Your task to perform on an android device: install app "NewsBreak: Local News & Alerts" Image 0: 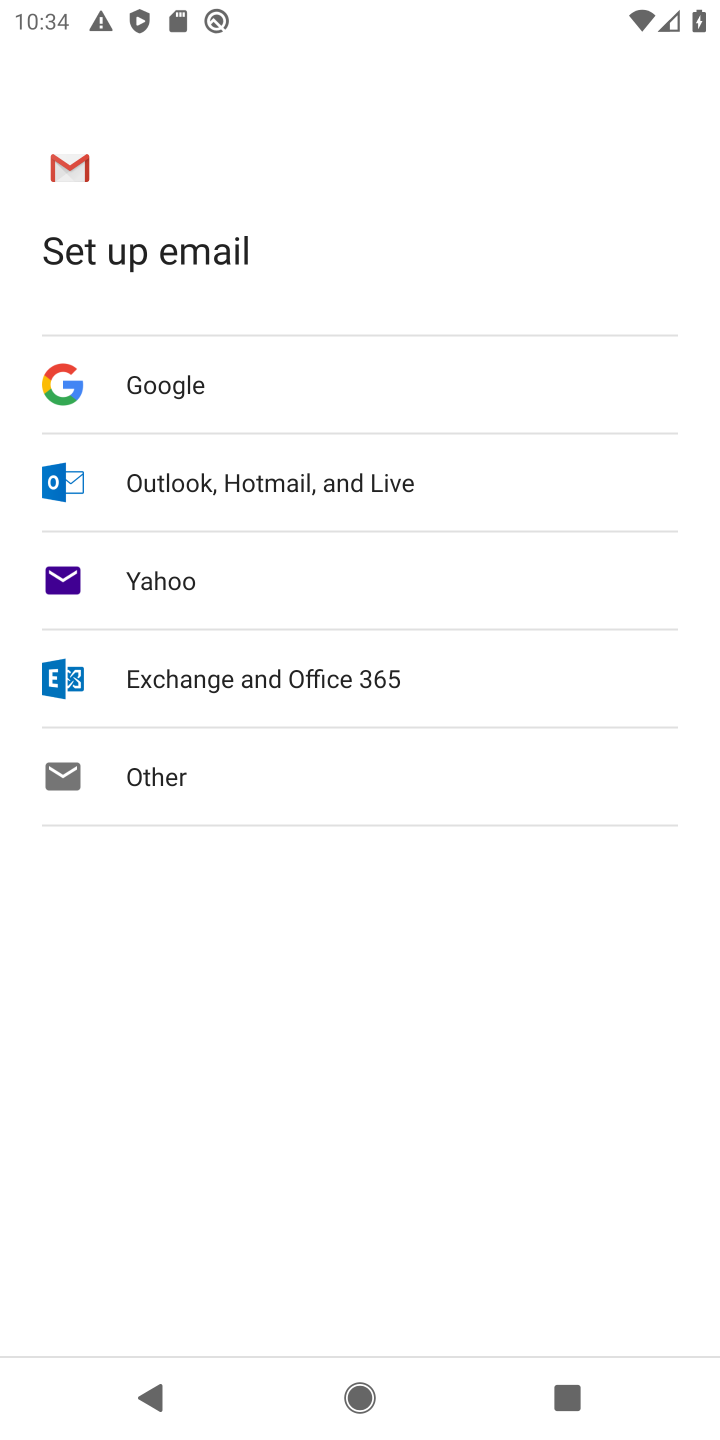
Step 0: press home button
Your task to perform on an android device: install app "NewsBreak: Local News & Alerts" Image 1: 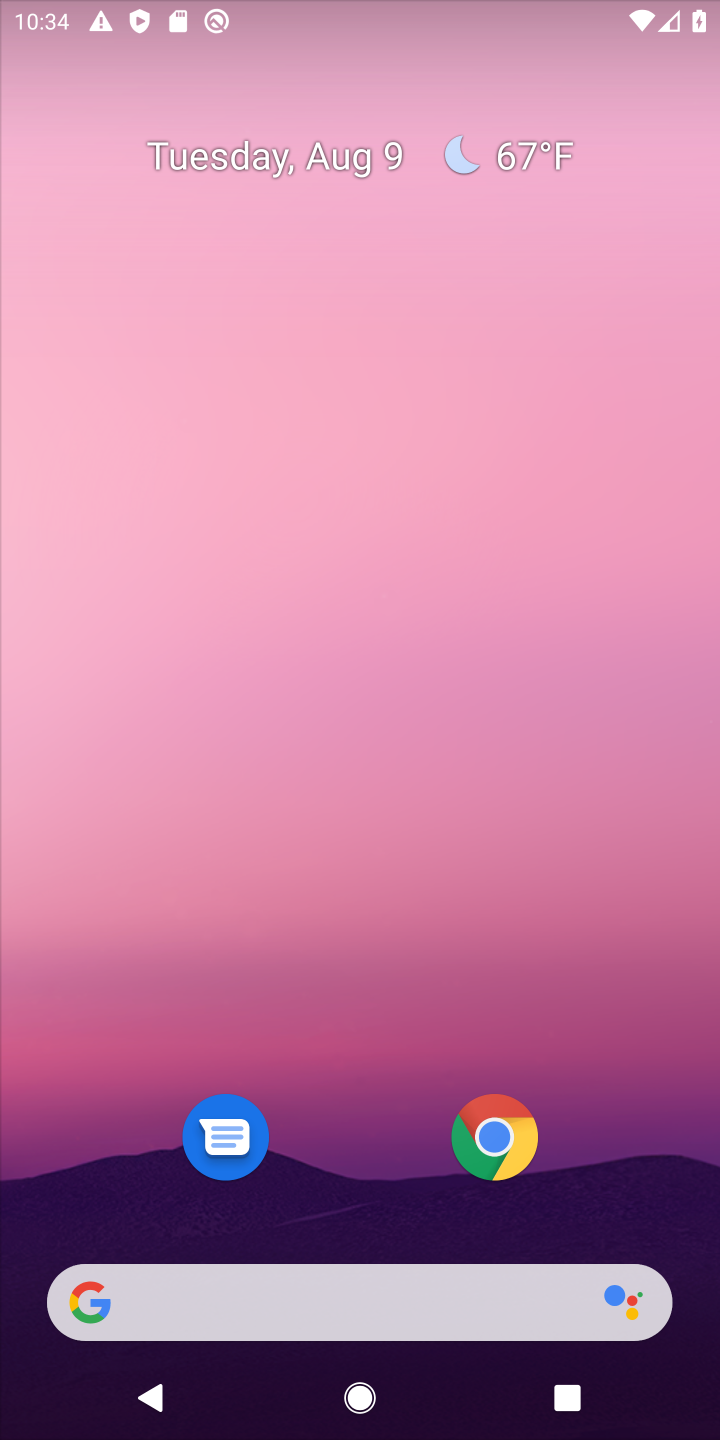
Step 1: drag from (489, 770) to (279, 16)
Your task to perform on an android device: install app "NewsBreak: Local News & Alerts" Image 2: 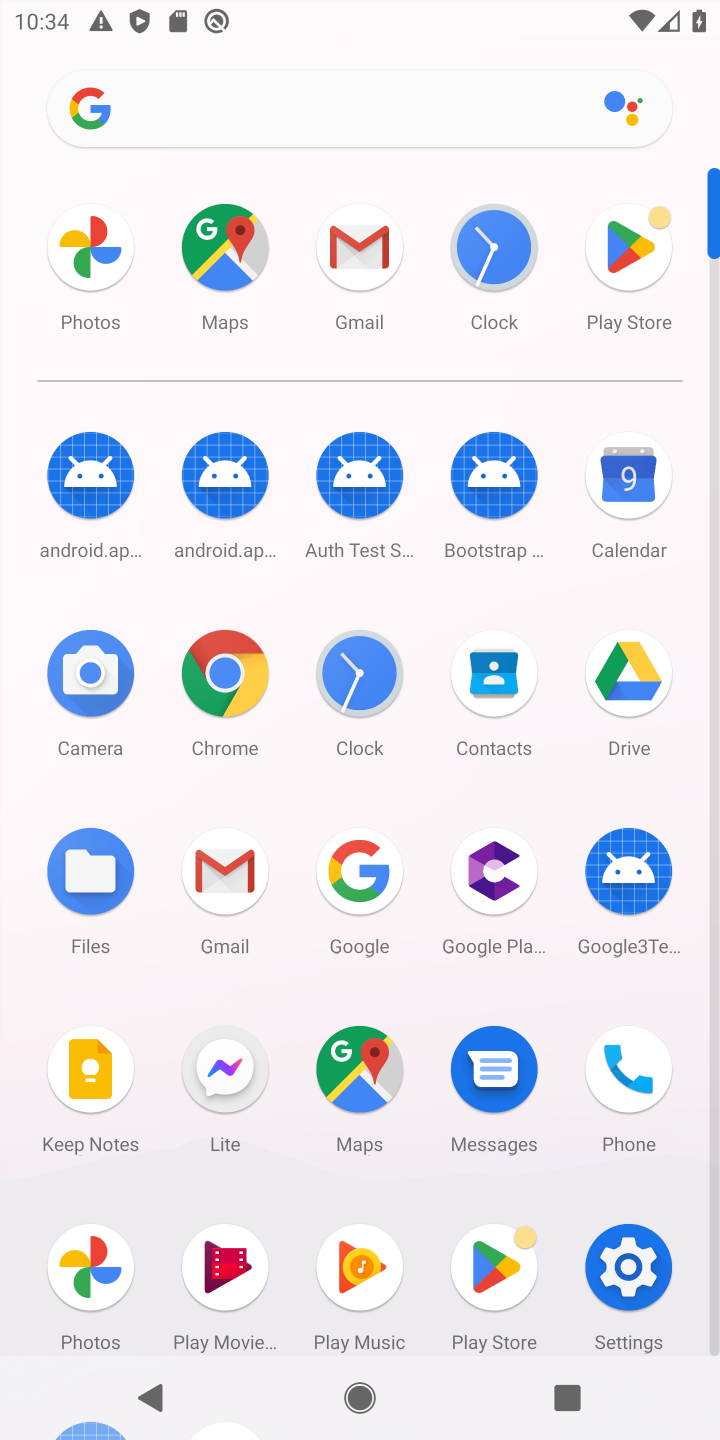
Step 2: click (628, 211)
Your task to perform on an android device: install app "NewsBreak: Local News & Alerts" Image 3: 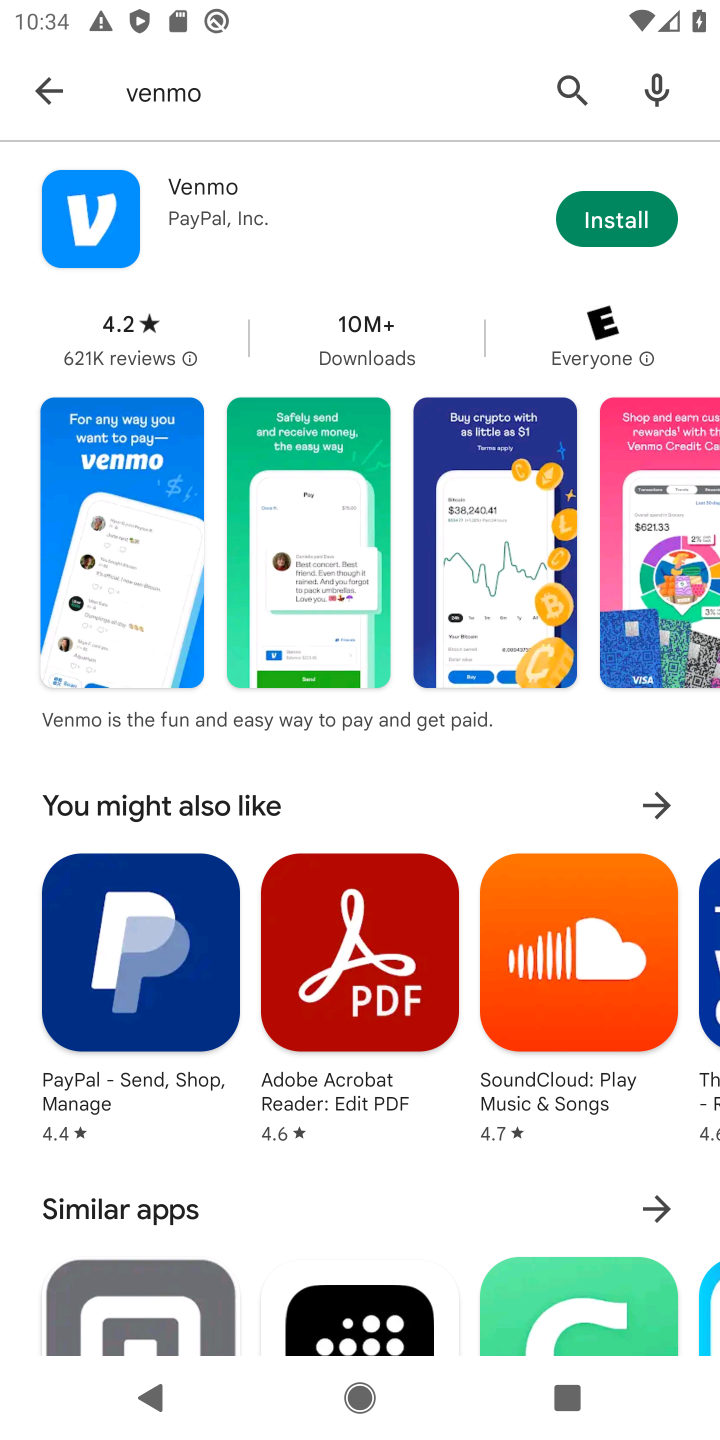
Step 3: press back button
Your task to perform on an android device: install app "NewsBreak: Local News & Alerts" Image 4: 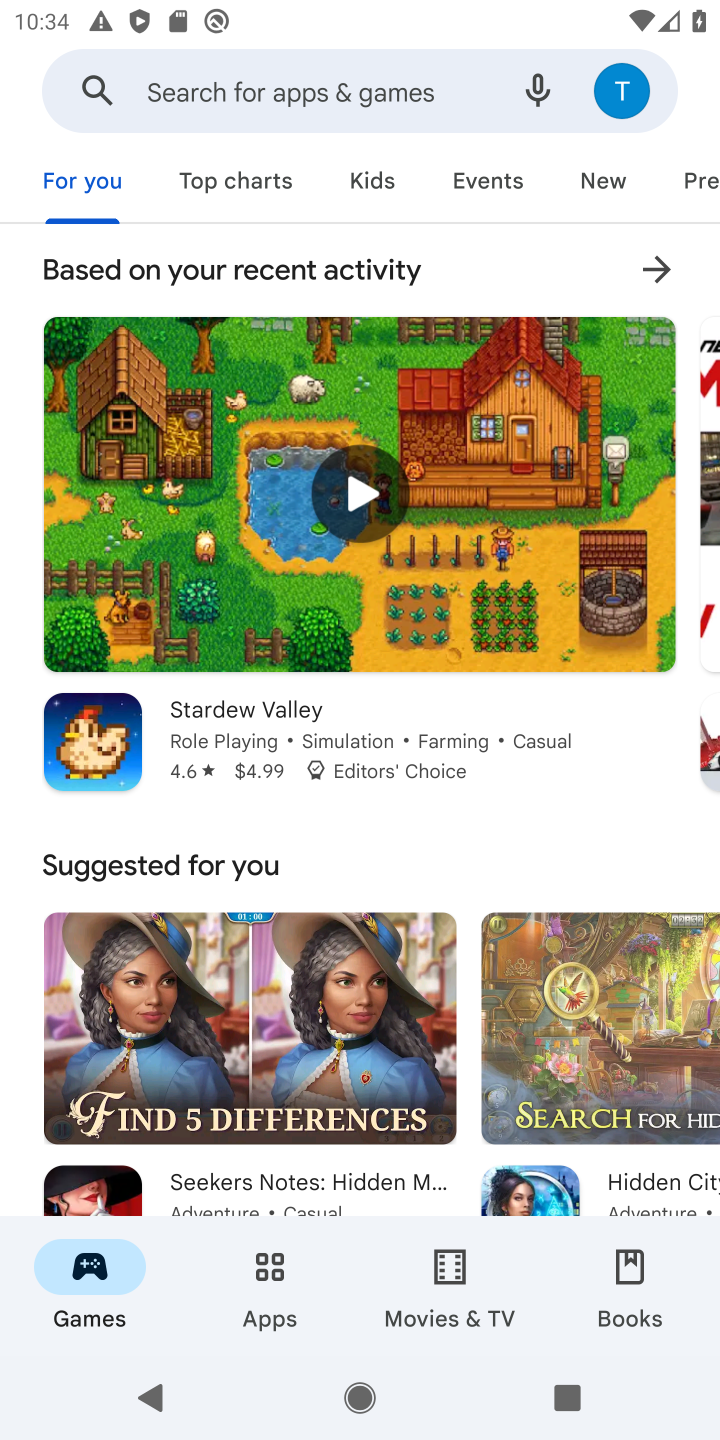
Step 4: click (233, 97)
Your task to perform on an android device: install app "NewsBreak: Local News & Alerts" Image 5: 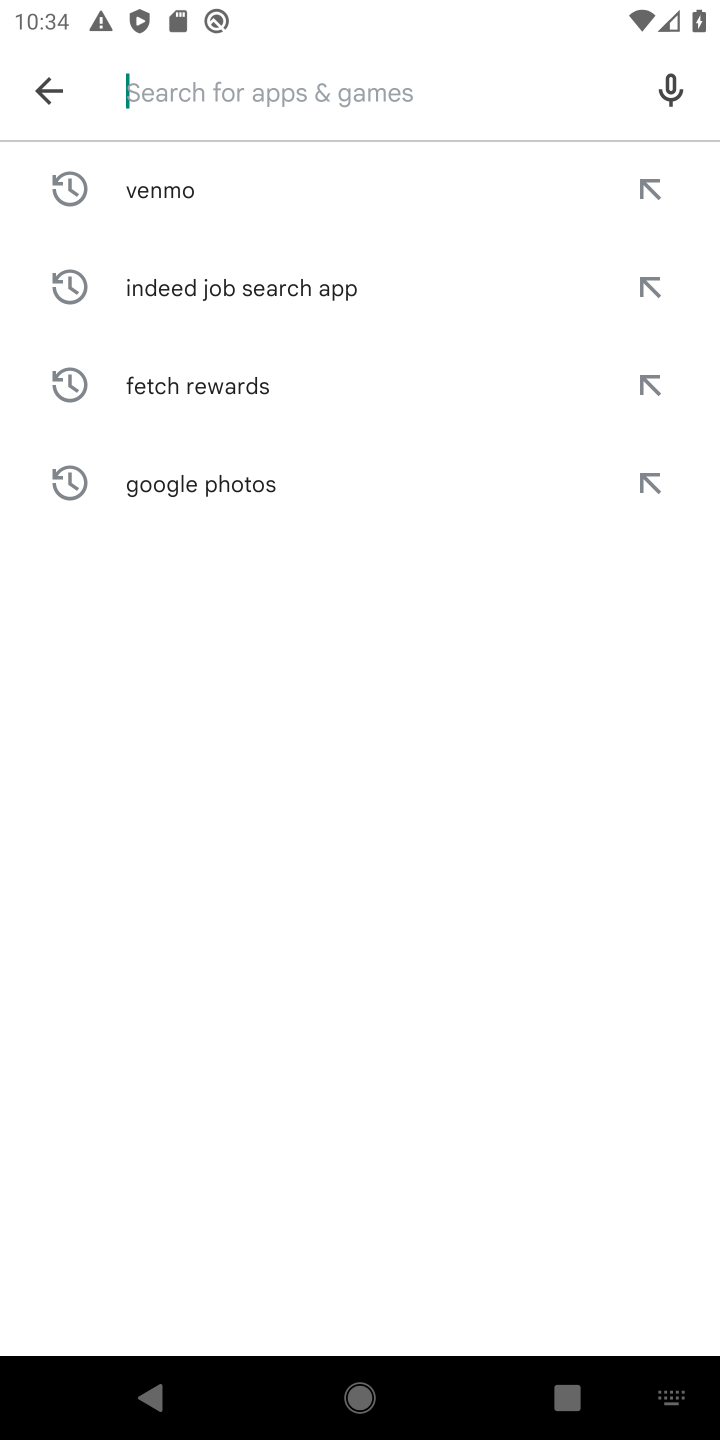
Step 5: type "NewsBreak: Local News & Alerts"
Your task to perform on an android device: install app "NewsBreak: Local News & Alerts" Image 6: 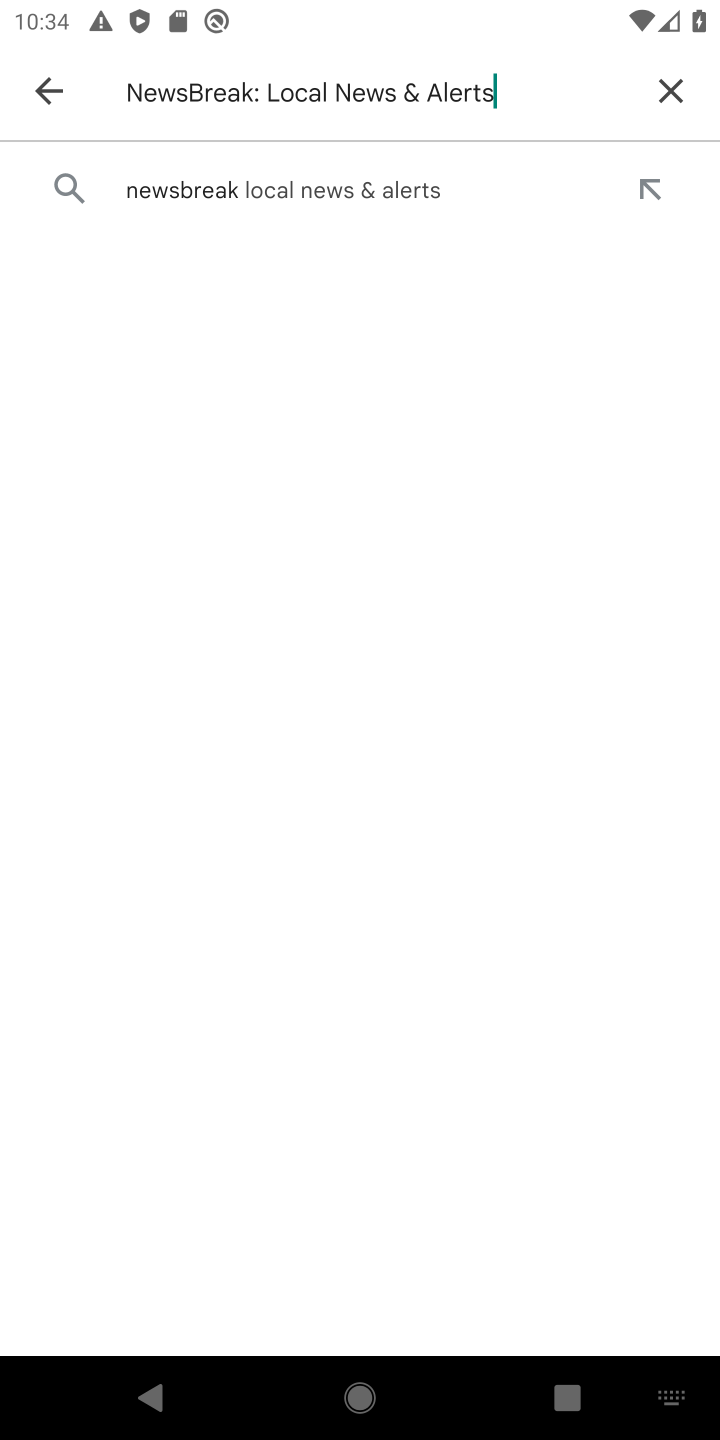
Step 6: click (233, 204)
Your task to perform on an android device: install app "NewsBreak: Local News & Alerts" Image 7: 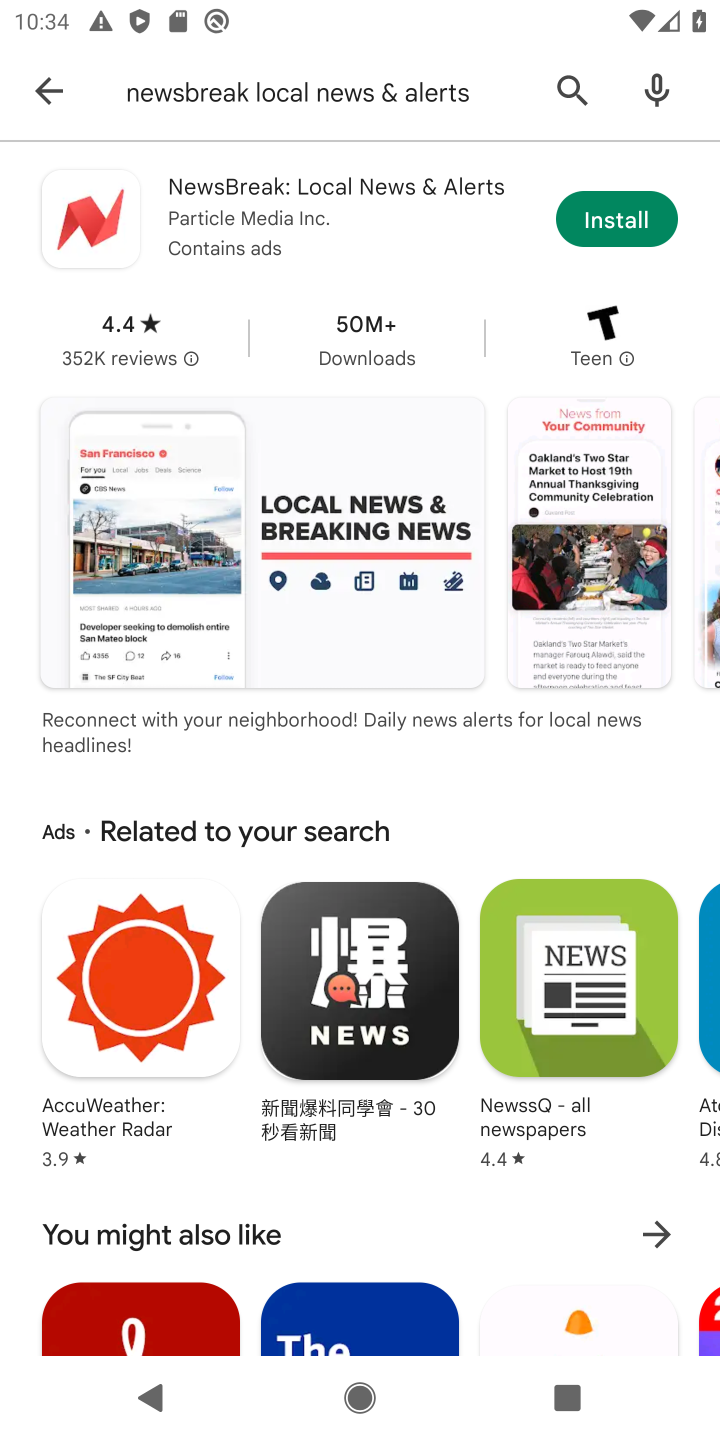
Step 7: click (600, 227)
Your task to perform on an android device: install app "NewsBreak: Local News & Alerts" Image 8: 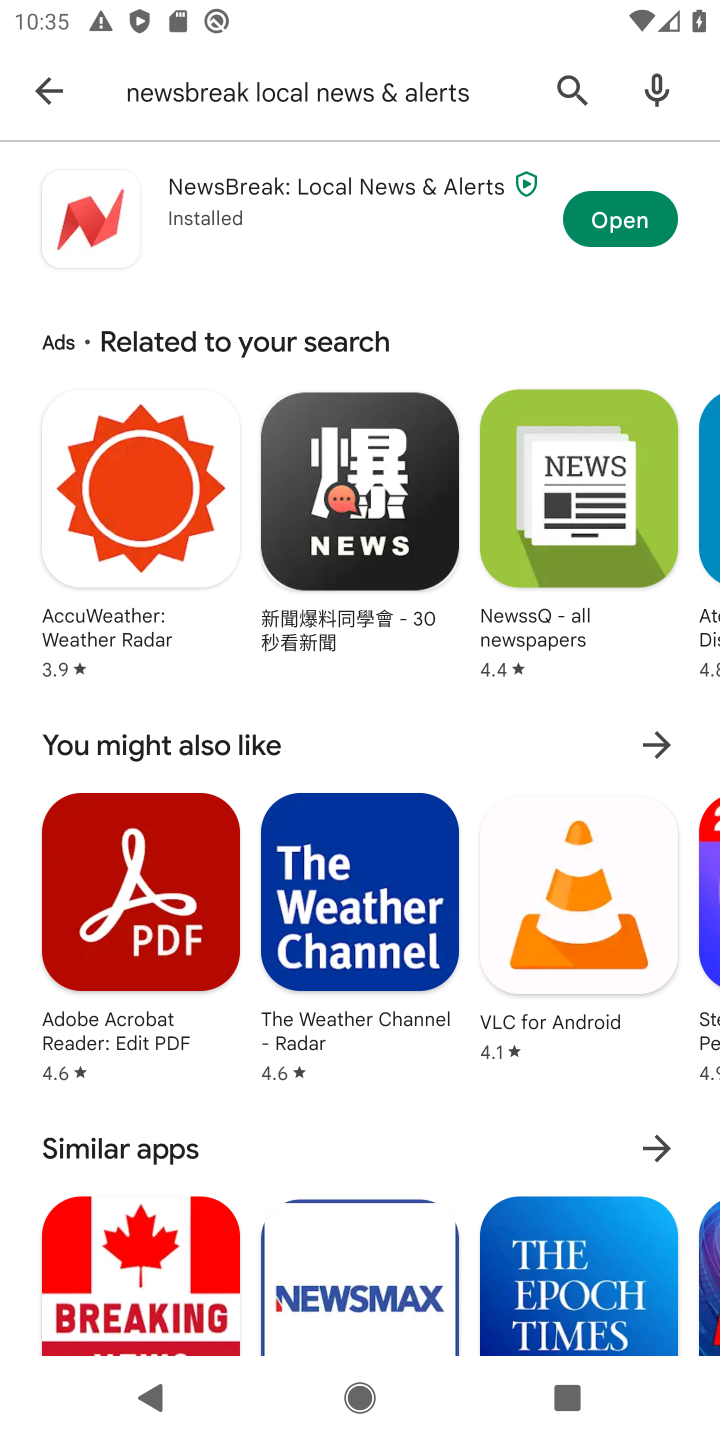
Step 8: task complete